Your task to perform on an android device: Search for flights from Sydney to Helsinki Image 0: 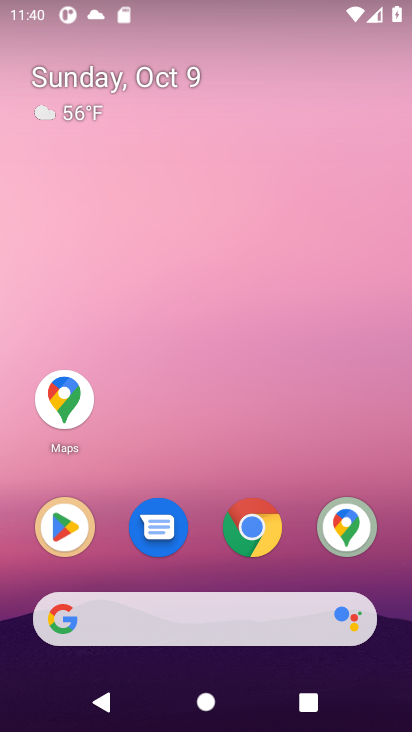
Step 0: click (249, 526)
Your task to perform on an android device: Search for flights from Sydney to Helsinki Image 1: 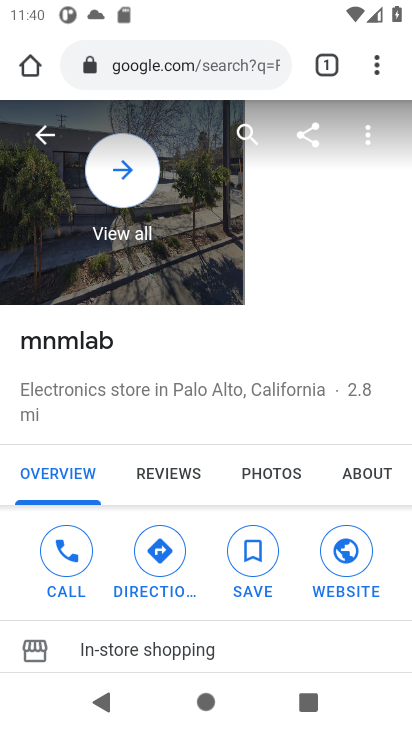
Step 1: click (161, 65)
Your task to perform on an android device: Search for flights from Sydney to Helsinki Image 2: 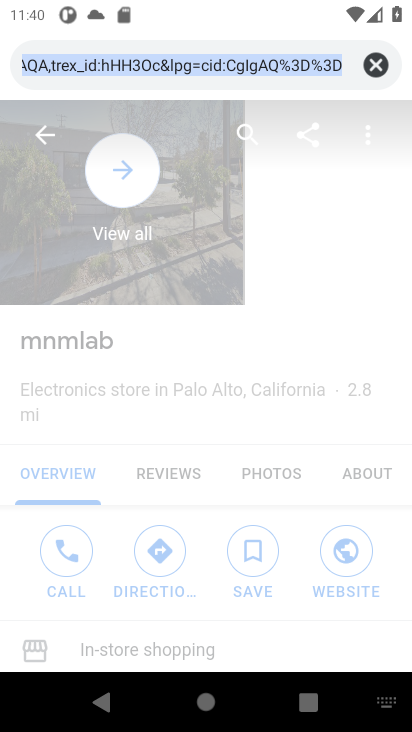
Step 2: click (377, 65)
Your task to perform on an android device: Search for flights from Sydney to Helsinki Image 3: 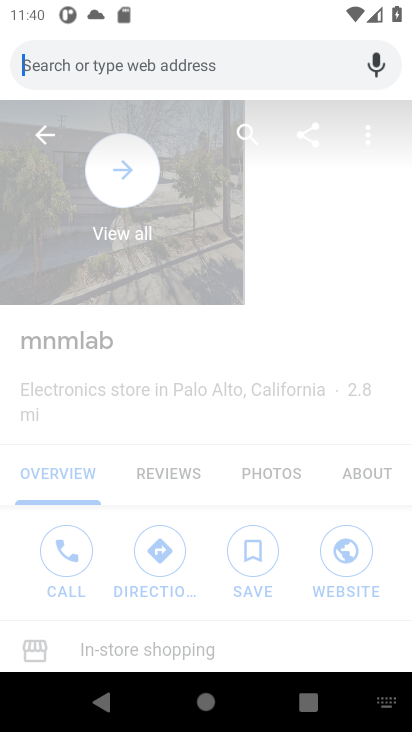
Step 3: type "flights from Sydney to Helsinki"
Your task to perform on an android device: Search for flights from Sydney to Helsinki Image 4: 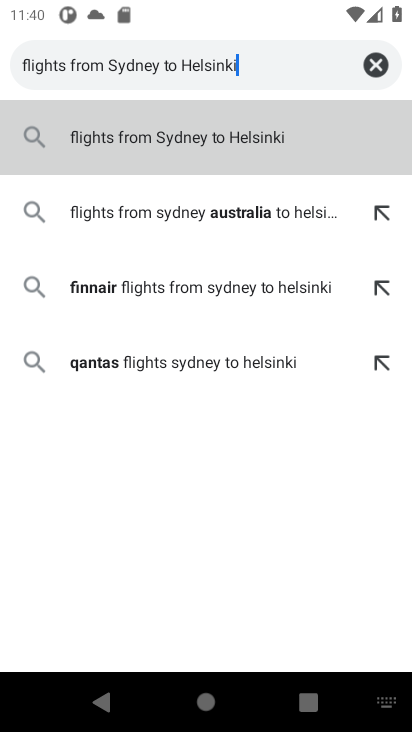
Step 4: click (236, 145)
Your task to perform on an android device: Search for flights from Sydney to Helsinki Image 5: 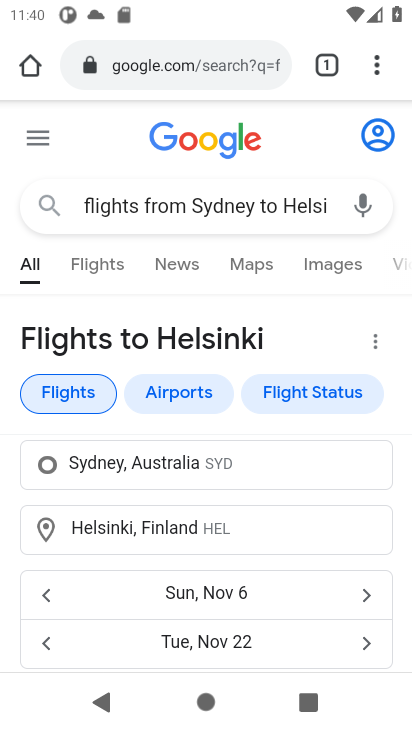
Step 5: task complete